Your task to perform on an android device: turn off wifi Image 0: 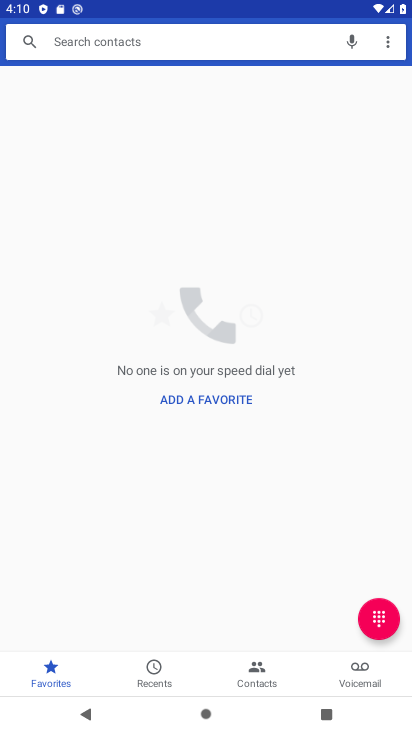
Step 0: drag from (217, 390) to (171, 10)
Your task to perform on an android device: turn off wifi Image 1: 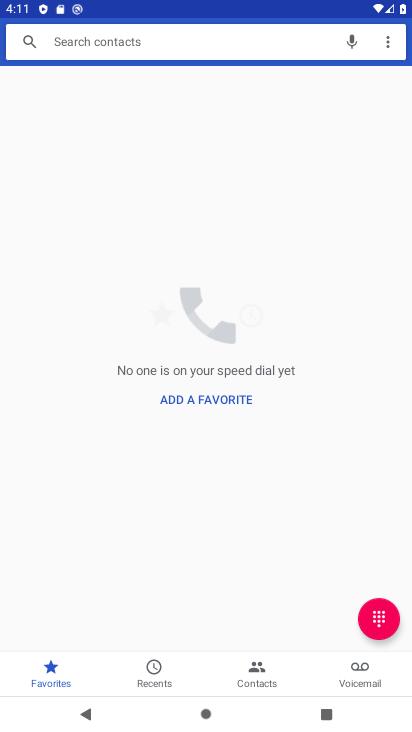
Step 1: press back button
Your task to perform on an android device: turn off wifi Image 2: 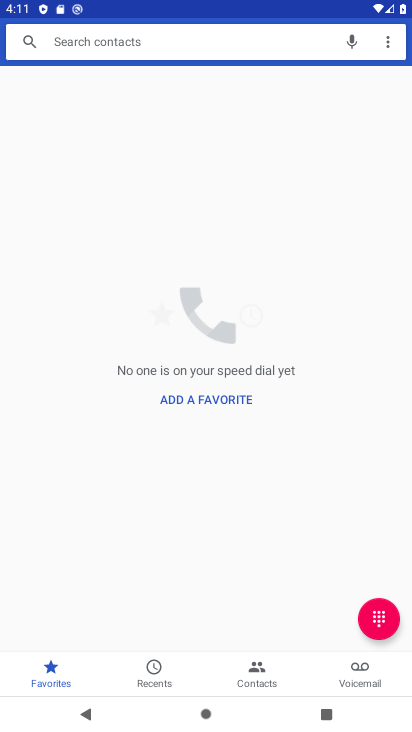
Step 2: press back button
Your task to perform on an android device: turn off wifi Image 3: 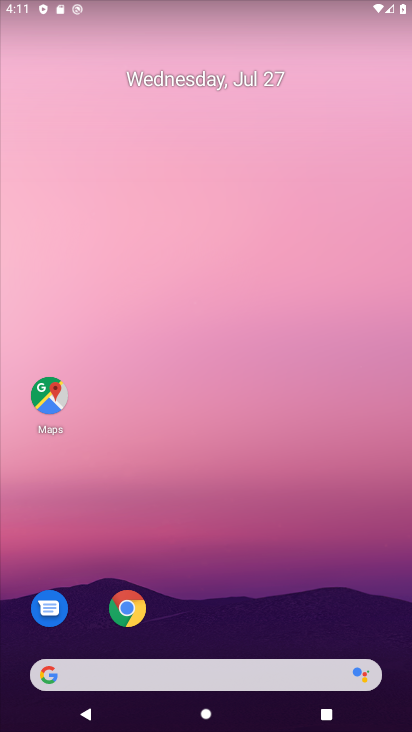
Step 3: drag from (251, 499) to (251, 102)
Your task to perform on an android device: turn off wifi Image 4: 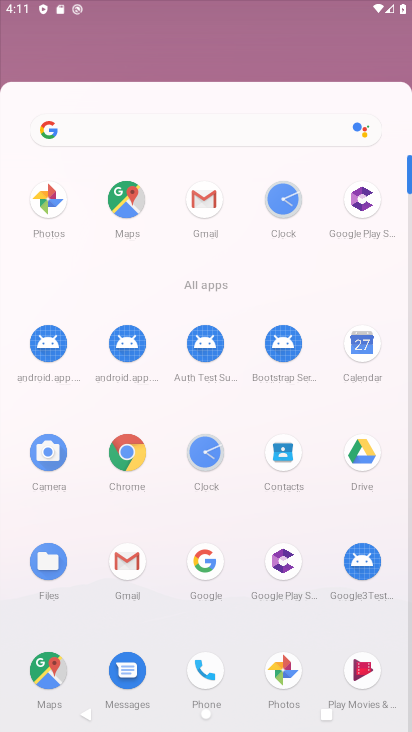
Step 4: drag from (210, 150) to (179, 321)
Your task to perform on an android device: turn off wifi Image 5: 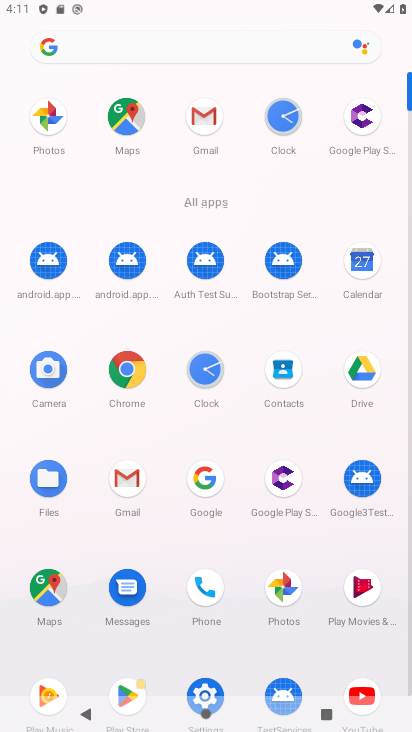
Step 5: click (203, 702)
Your task to perform on an android device: turn off wifi Image 6: 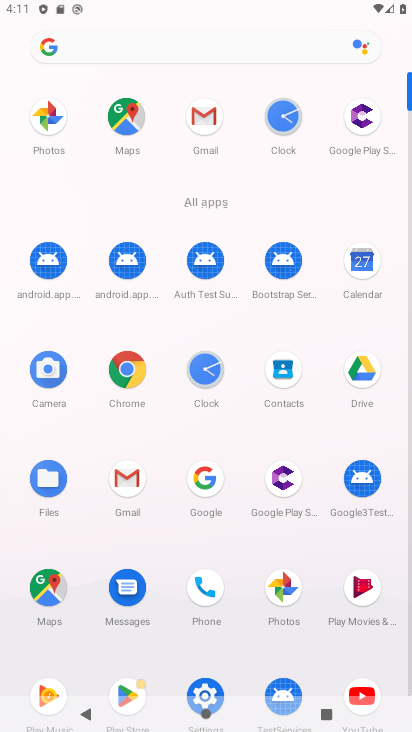
Step 6: click (209, 697)
Your task to perform on an android device: turn off wifi Image 7: 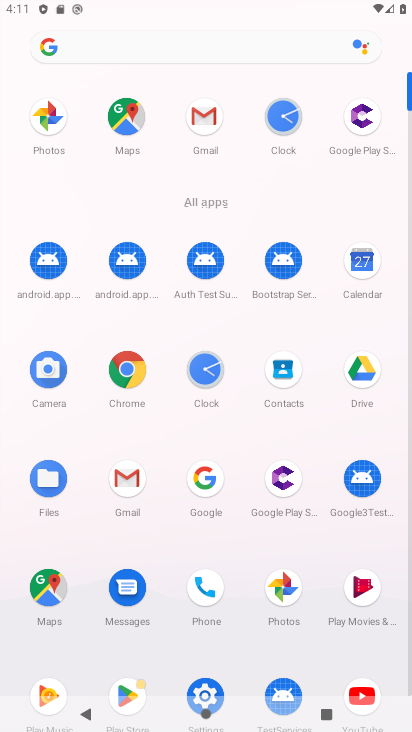
Step 7: click (210, 698)
Your task to perform on an android device: turn off wifi Image 8: 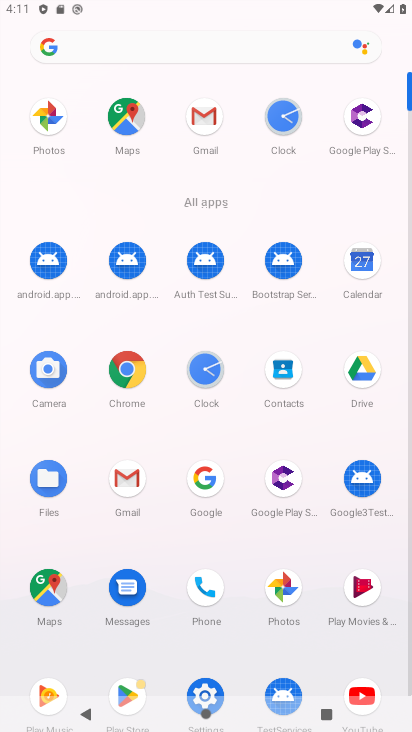
Step 8: click (209, 700)
Your task to perform on an android device: turn off wifi Image 9: 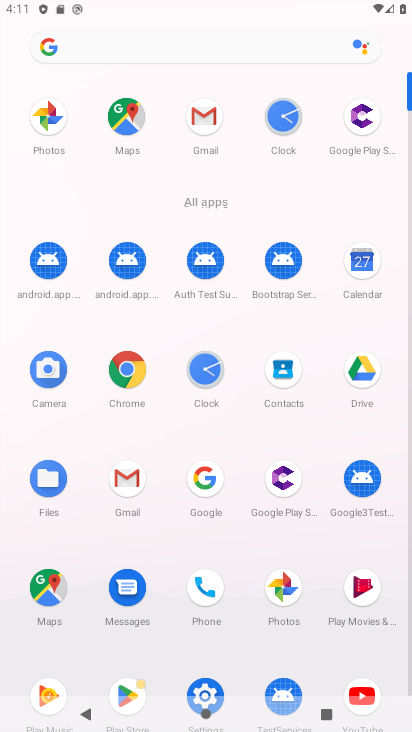
Step 9: click (201, 688)
Your task to perform on an android device: turn off wifi Image 10: 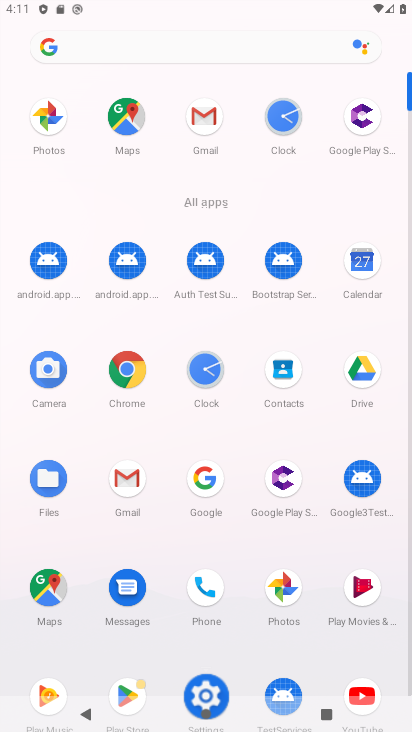
Step 10: click (206, 681)
Your task to perform on an android device: turn off wifi Image 11: 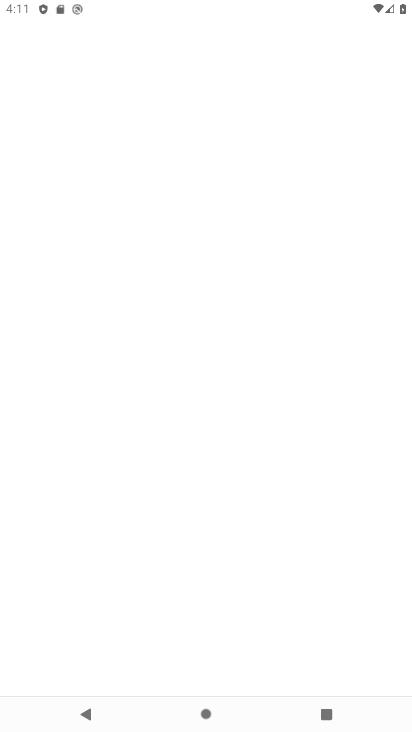
Step 11: click (206, 668)
Your task to perform on an android device: turn off wifi Image 12: 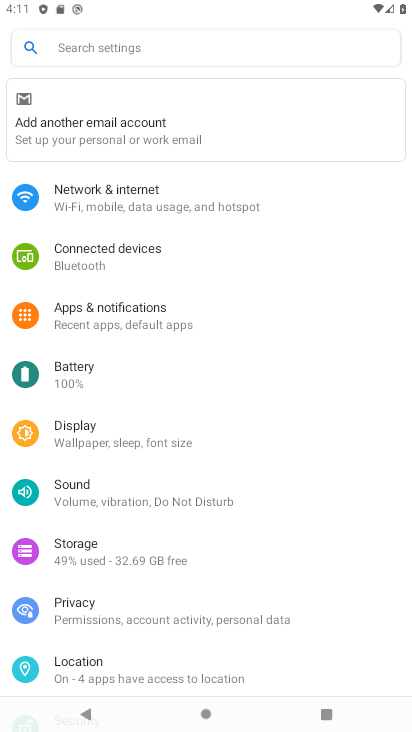
Step 12: click (117, 191)
Your task to perform on an android device: turn off wifi Image 13: 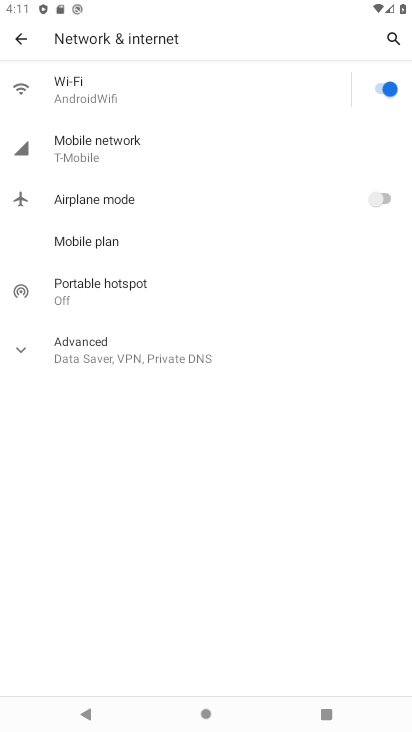
Step 13: click (124, 203)
Your task to perform on an android device: turn off wifi Image 14: 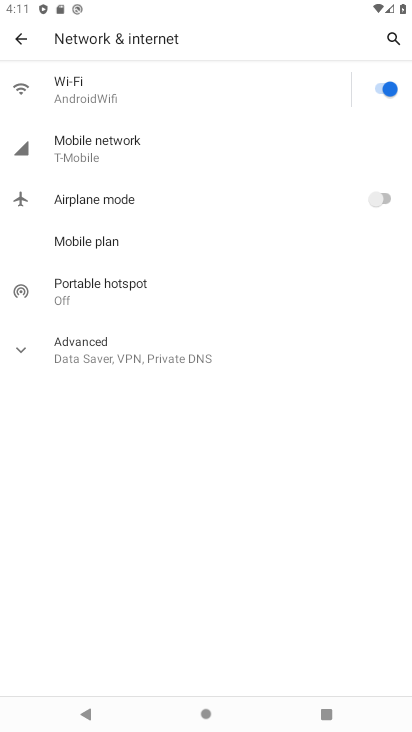
Step 14: click (389, 78)
Your task to perform on an android device: turn off wifi Image 15: 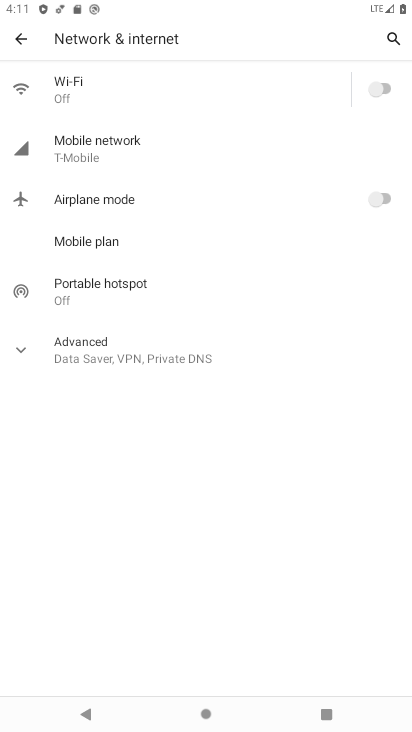
Step 15: task complete